Your task to perform on an android device: Open Android settings Image 0: 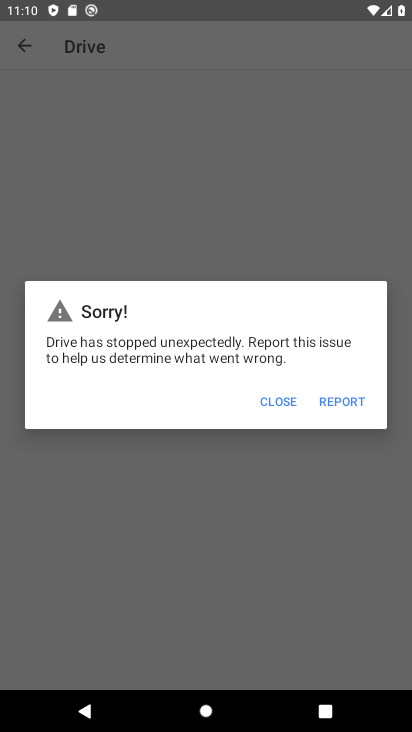
Step 0: drag from (229, 639) to (217, 0)
Your task to perform on an android device: Open Android settings Image 1: 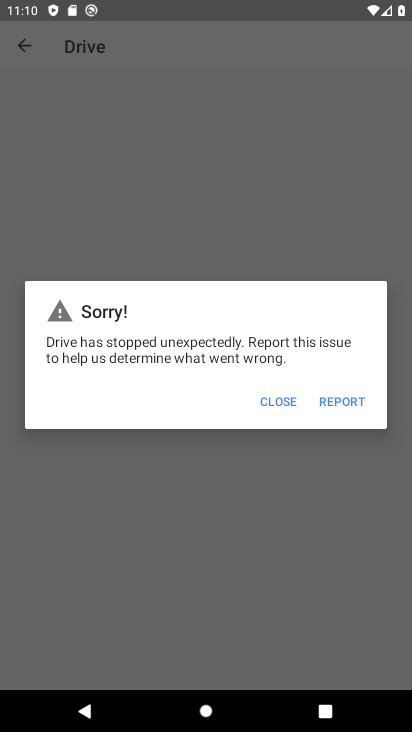
Step 1: press home button
Your task to perform on an android device: Open Android settings Image 2: 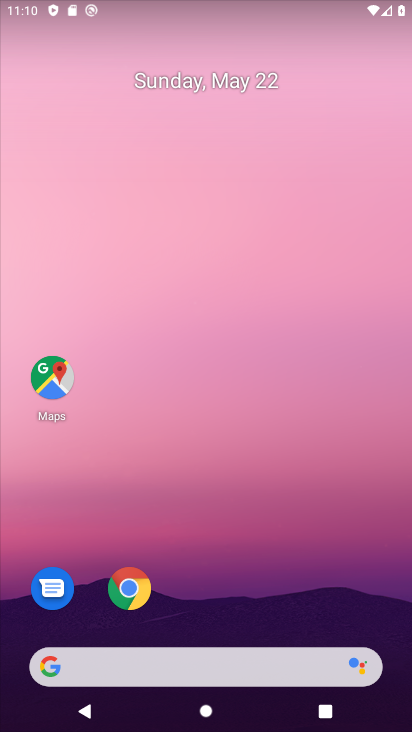
Step 2: drag from (190, 629) to (171, 72)
Your task to perform on an android device: Open Android settings Image 3: 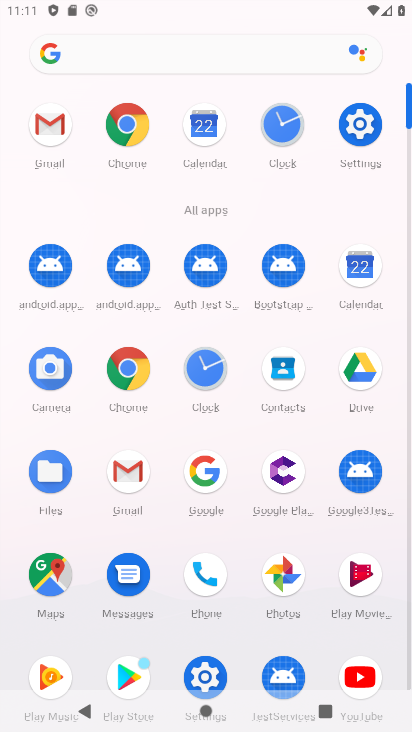
Step 3: click (354, 118)
Your task to perform on an android device: Open Android settings Image 4: 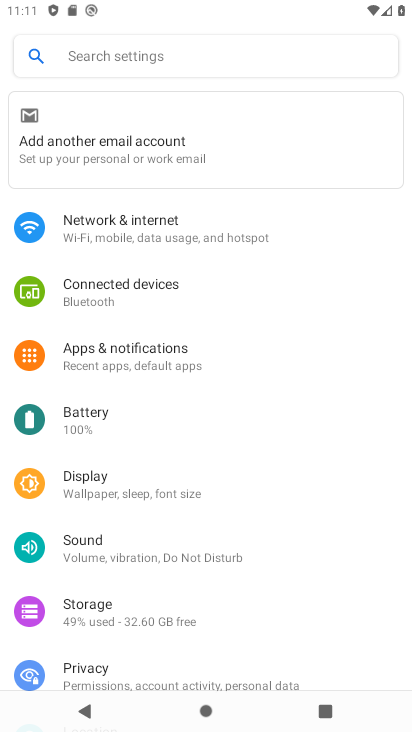
Step 4: task complete